Your task to perform on an android device: change the clock display to digital Image 0: 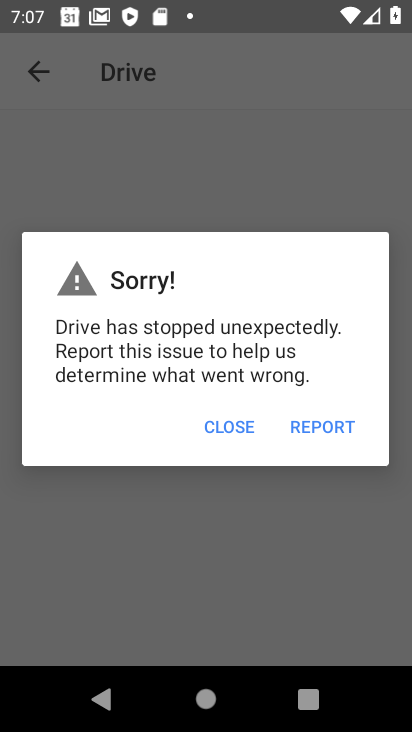
Step 0: press home button
Your task to perform on an android device: change the clock display to digital Image 1: 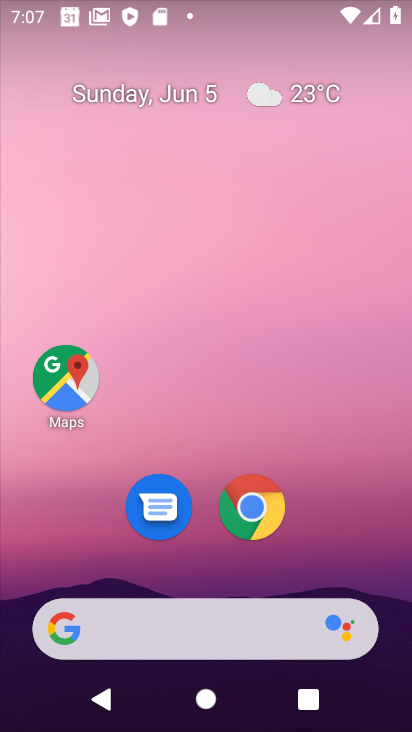
Step 1: drag from (271, 656) to (232, 12)
Your task to perform on an android device: change the clock display to digital Image 2: 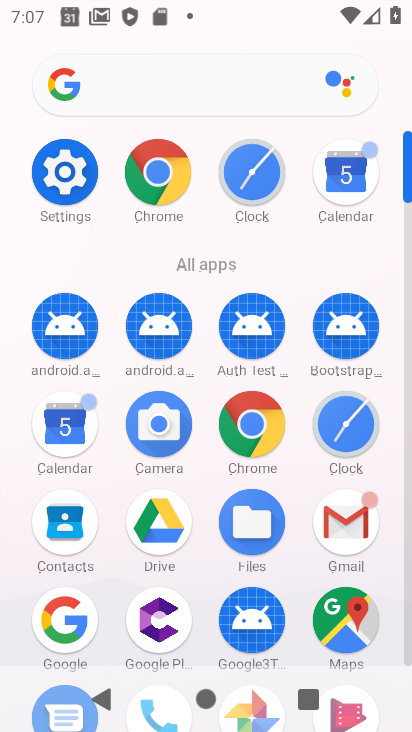
Step 2: click (66, 187)
Your task to perform on an android device: change the clock display to digital Image 3: 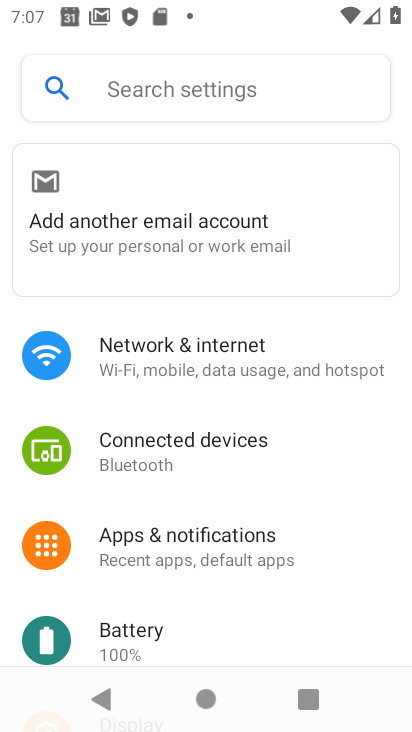
Step 3: drag from (211, 586) to (206, 373)
Your task to perform on an android device: change the clock display to digital Image 4: 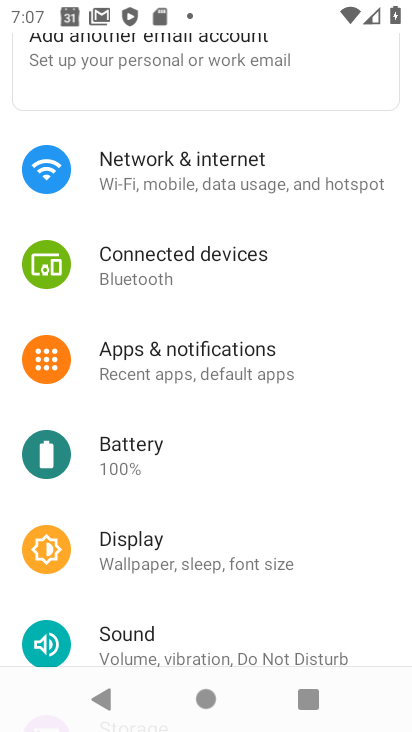
Step 4: click (215, 555)
Your task to perform on an android device: change the clock display to digital Image 5: 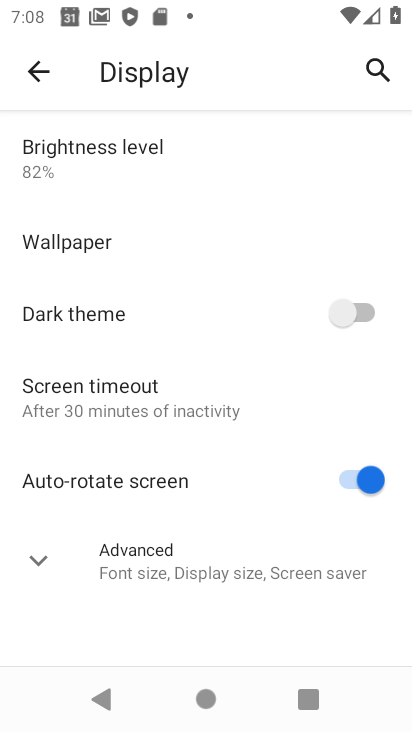
Step 5: task complete